Your task to perform on an android device: open app "Gboard" (install if not already installed) Image 0: 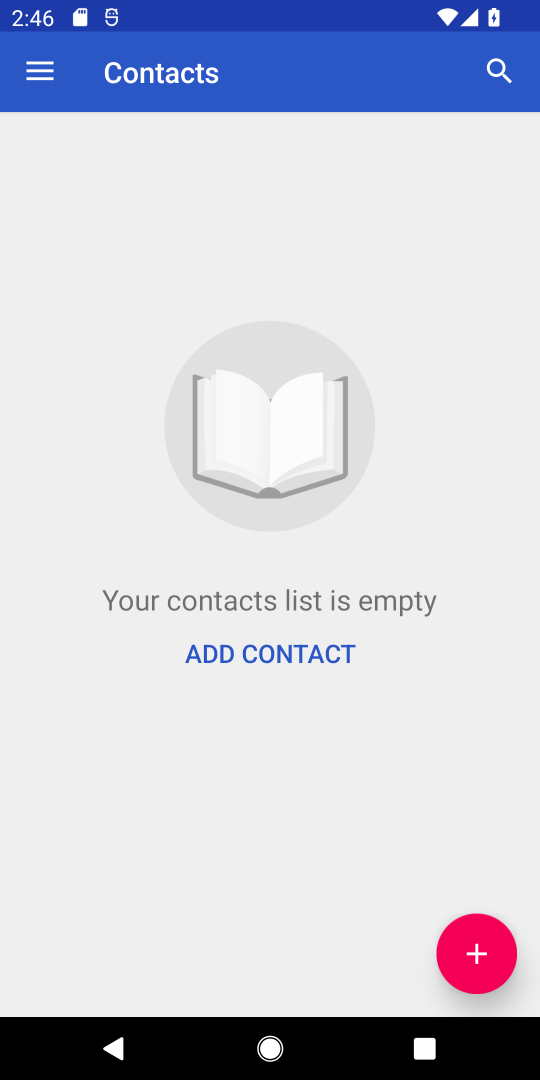
Step 0: press home button
Your task to perform on an android device: open app "Gboard" (install if not already installed) Image 1: 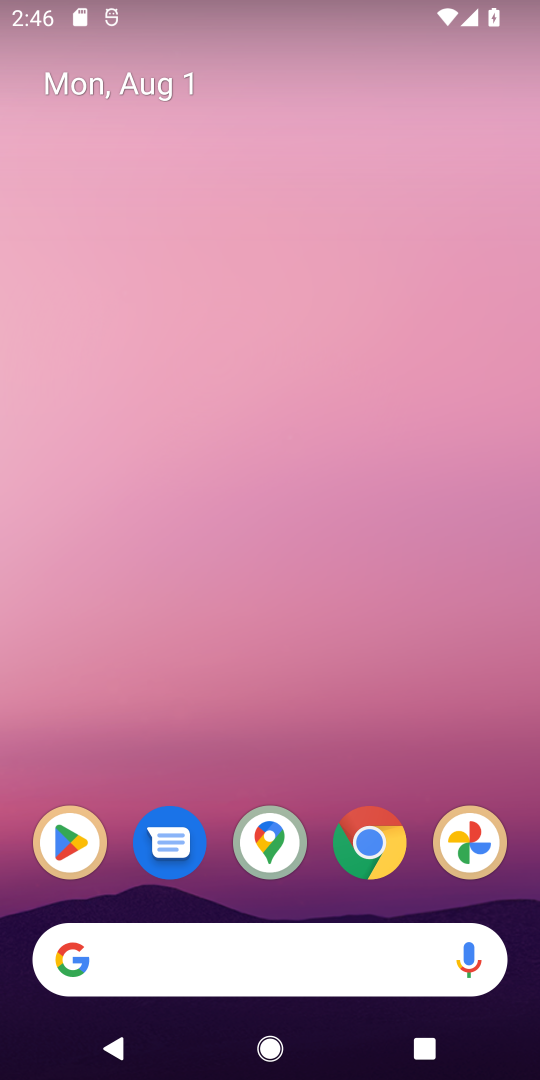
Step 1: click (78, 853)
Your task to perform on an android device: open app "Gboard" (install if not already installed) Image 2: 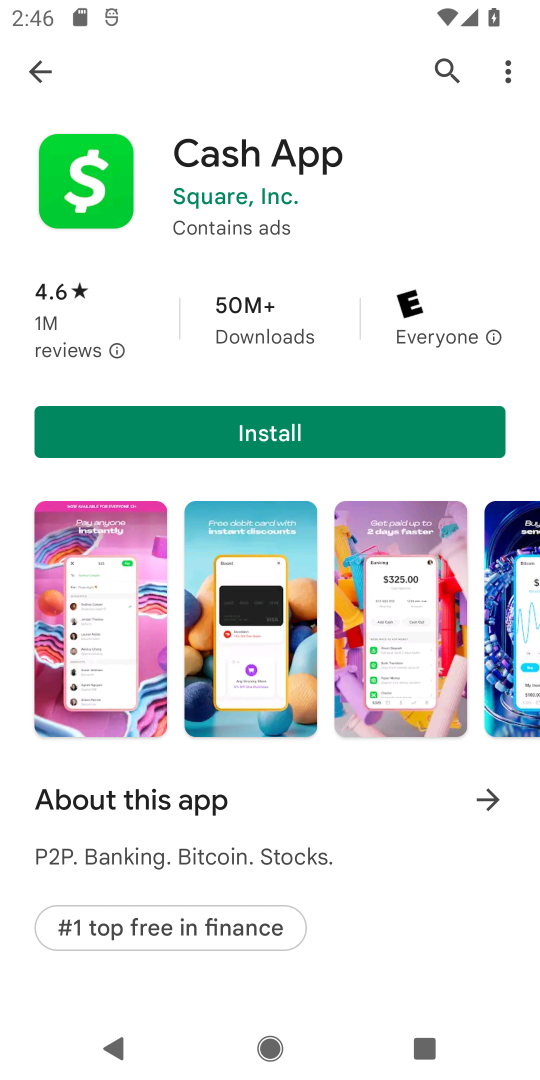
Step 2: click (46, 74)
Your task to perform on an android device: open app "Gboard" (install if not already installed) Image 3: 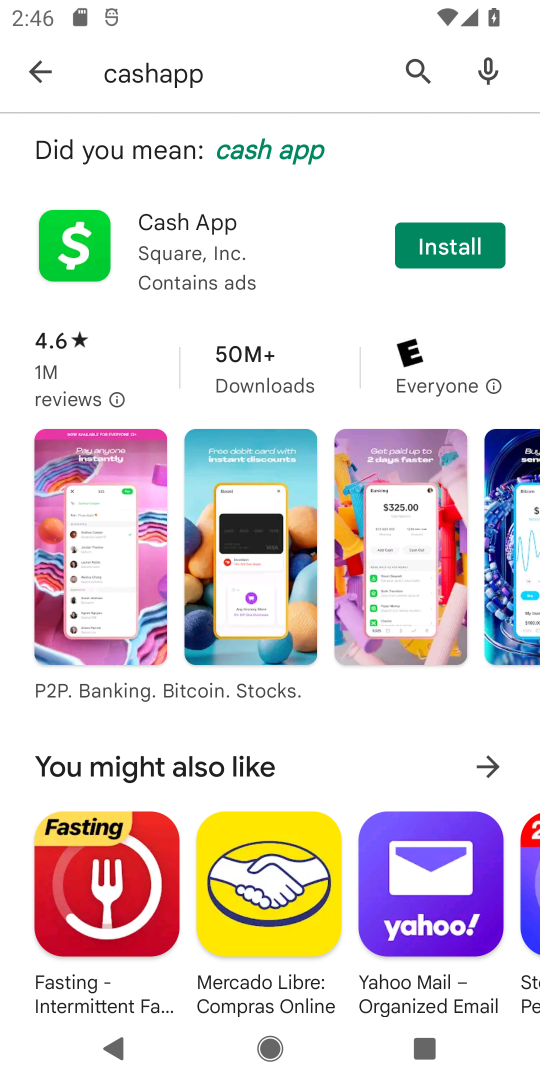
Step 3: click (189, 73)
Your task to perform on an android device: open app "Gboard" (install if not already installed) Image 4: 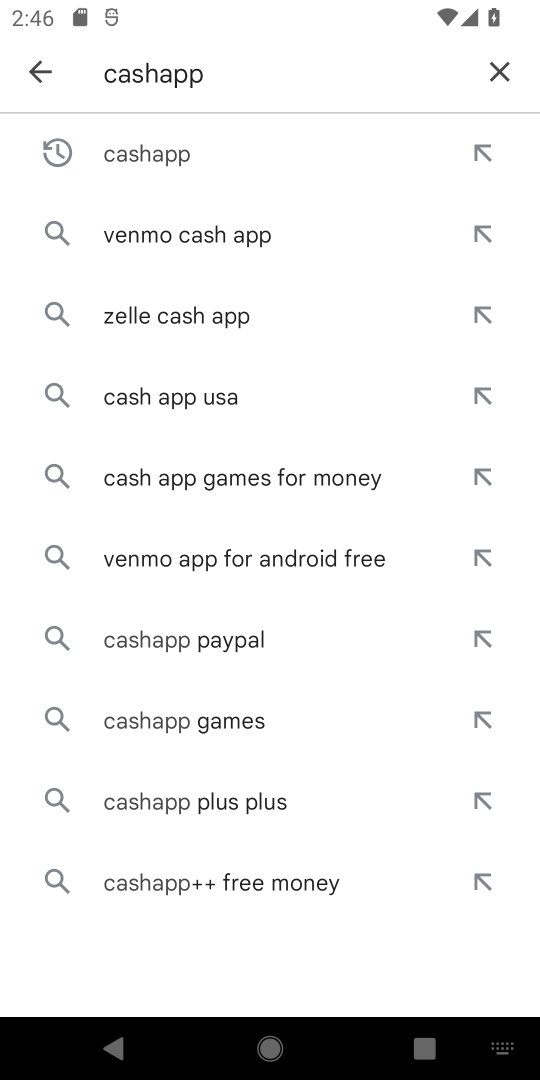
Step 4: click (497, 64)
Your task to perform on an android device: open app "Gboard" (install if not already installed) Image 5: 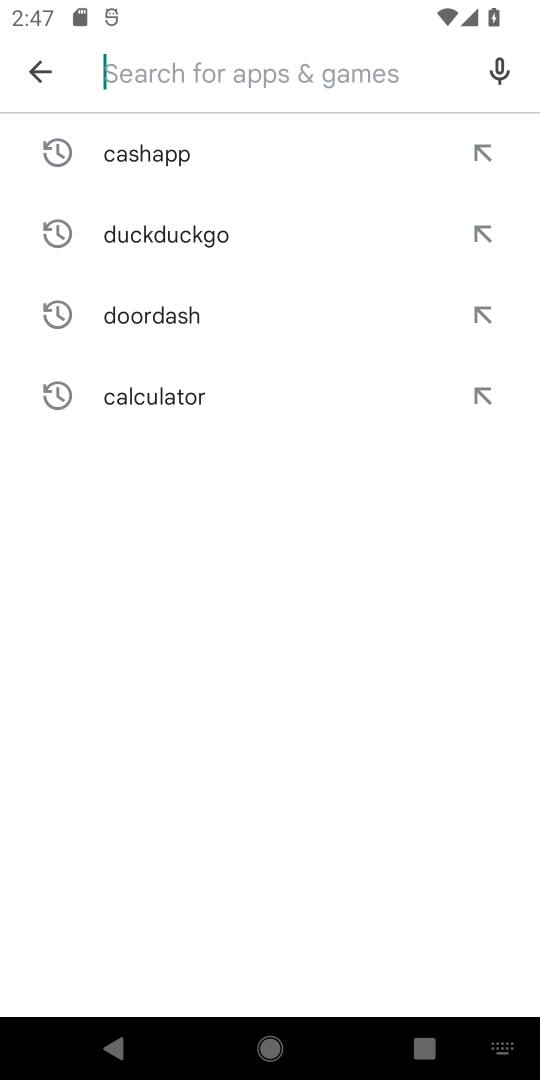
Step 5: type "Gboard"
Your task to perform on an android device: open app "Gboard" (install if not already installed) Image 6: 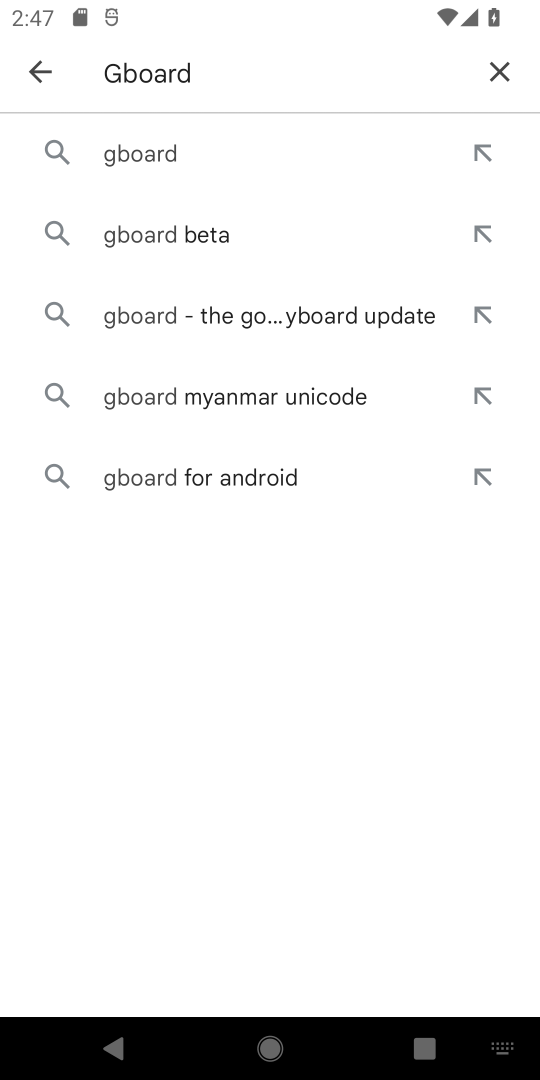
Step 6: click (152, 157)
Your task to perform on an android device: open app "Gboard" (install if not already installed) Image 7: 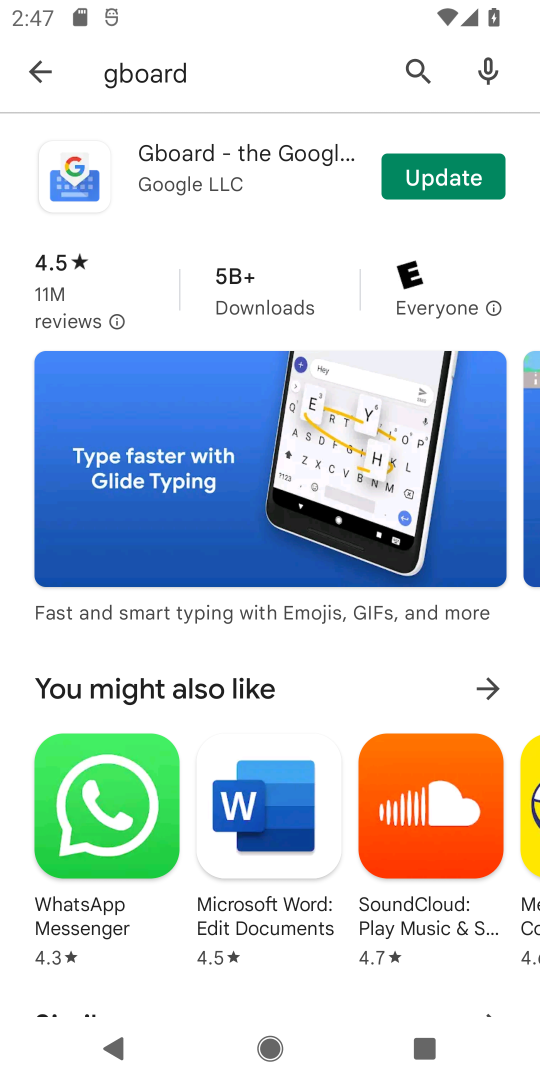
Step 7: click (430, 178)
Your task to perform on an android device: open app "Gboard" (install if not already installed) Image 8: 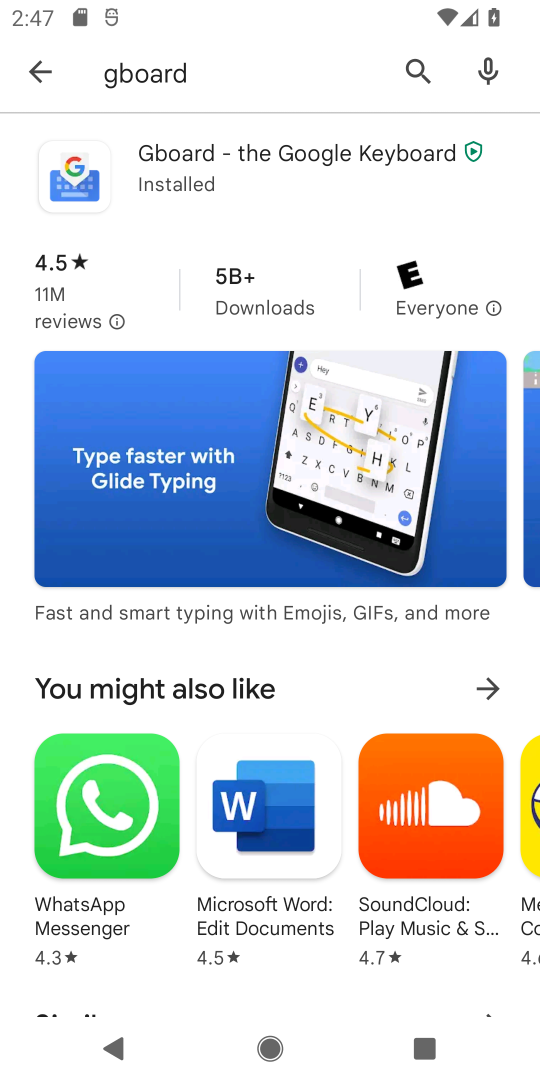
Step 8: click (206, 172)
Your task to perform on an android device: open app "Gboard" (install if not already installed) Image 9: 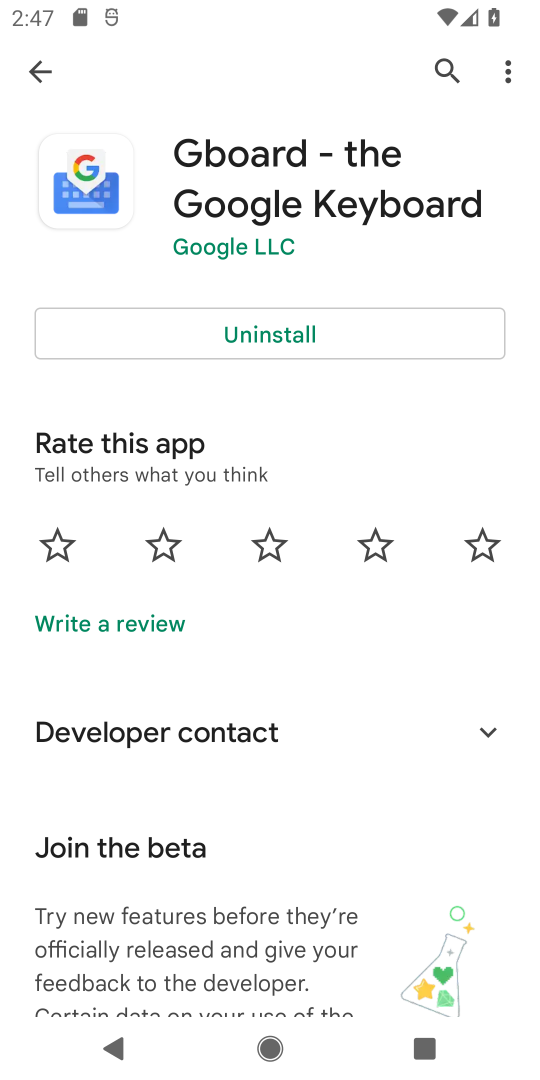
Step 9: task complete